Your task to perform on an android device: Do I have any events this weekend? Image 0: 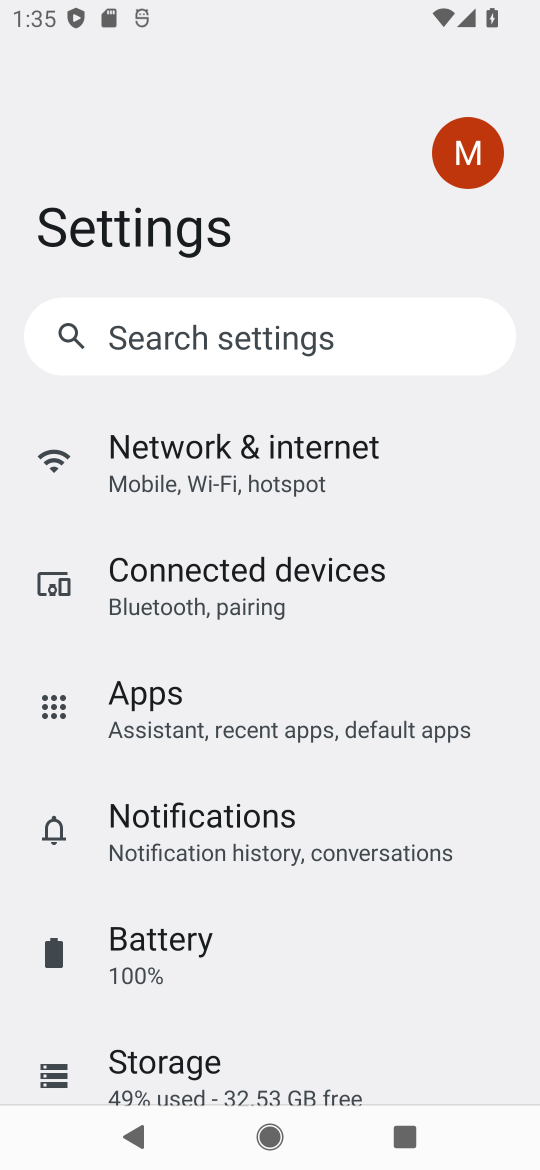
Step 0: press home button
Your task to perform on an android device: Do I have any events this weekend? Image 1: 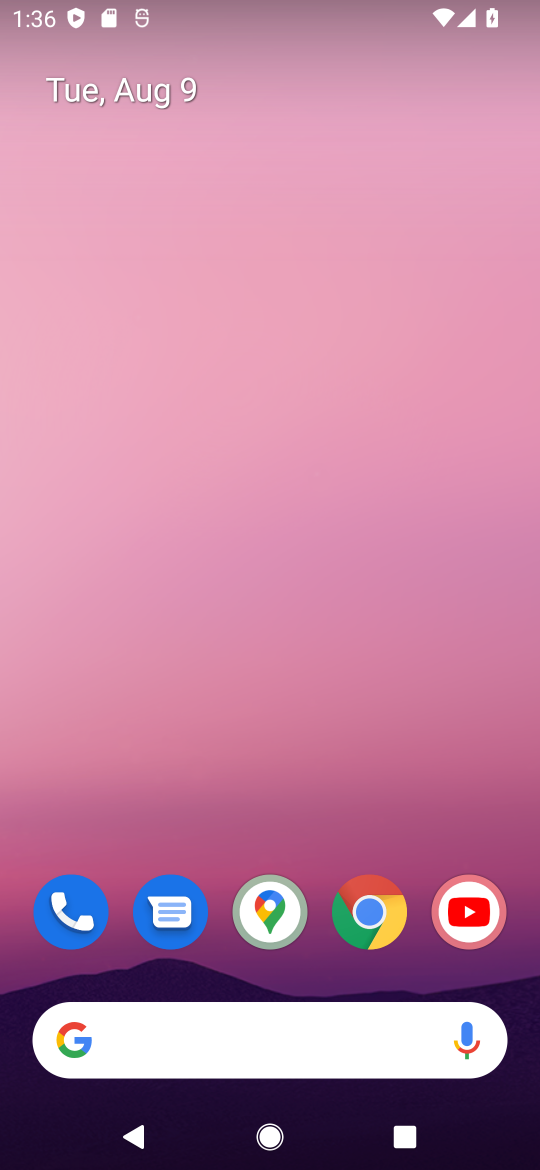
Step 1: drag from (174, 349) to (160, 218)
Your task to perform on an android device: Do I have any events this weekend? Image 2: 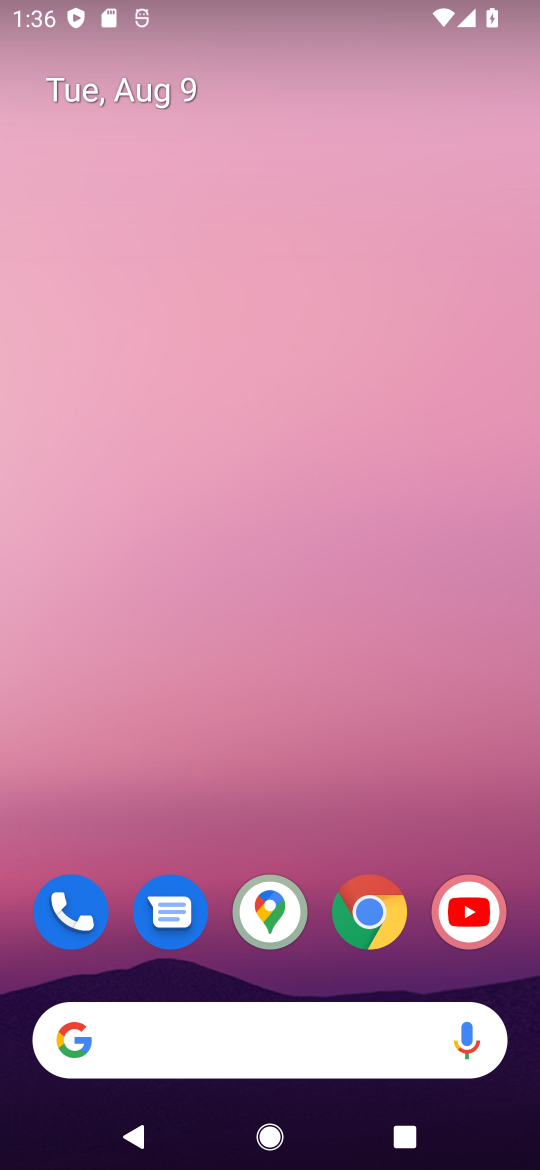
Step 2: drag from (353, 828) to (321, 162)
Your task to perform on an android device: Do I have any events this weekend? Image 3: 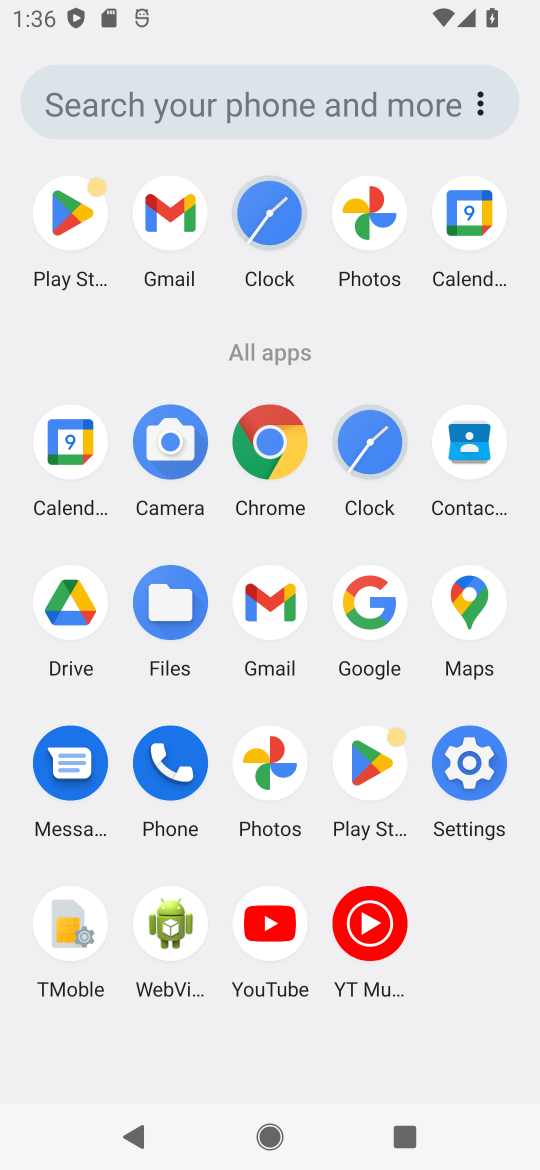
Step 3: click (473, 208)
Your task to perform on an android device: Do I have any events this weekend? Image 4: 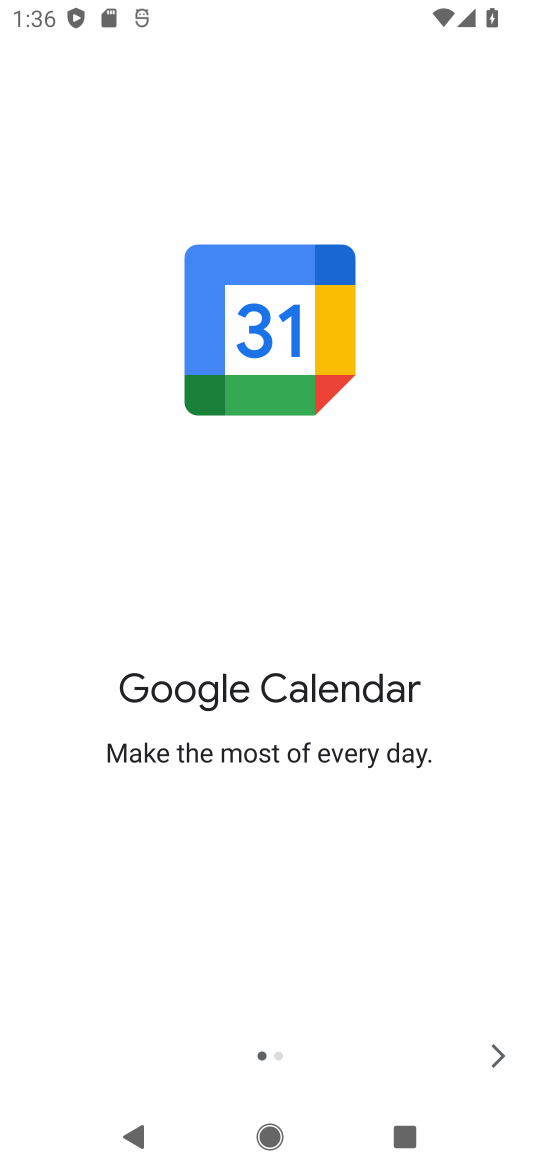
Step 4: click (500, 1057)
Your task to perform on an android device: Do I have any events this weekend? Image 5: 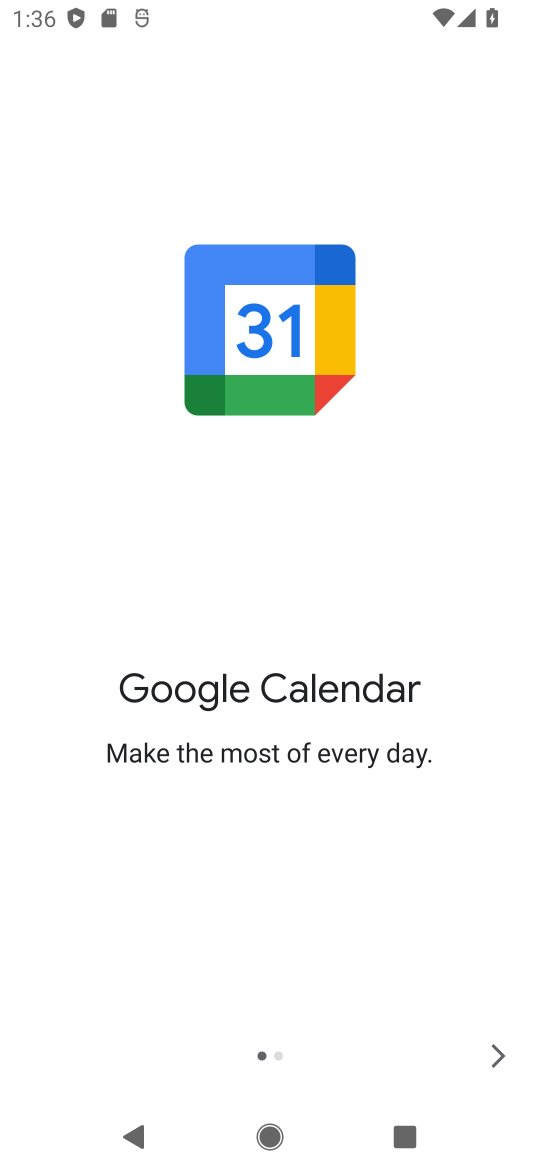
Step 5: click (500, 1057)
Your task to perform on an android device: Do I have any events this weekend? Image 6: 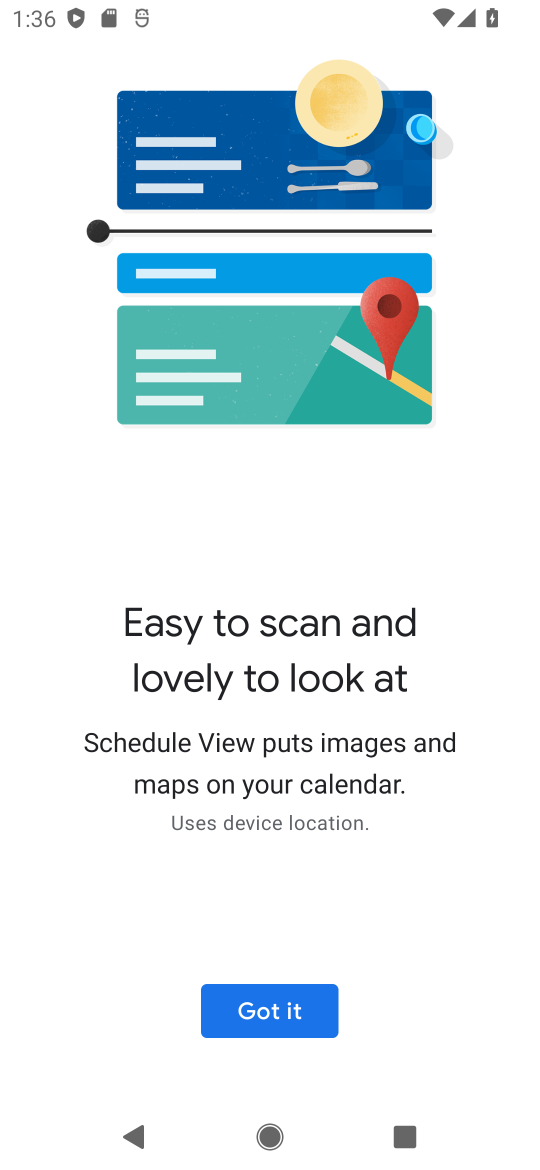
Step 6: click (270, 1013)
Your task to perform on an android device: Do I have any events this weekend? Image 7: 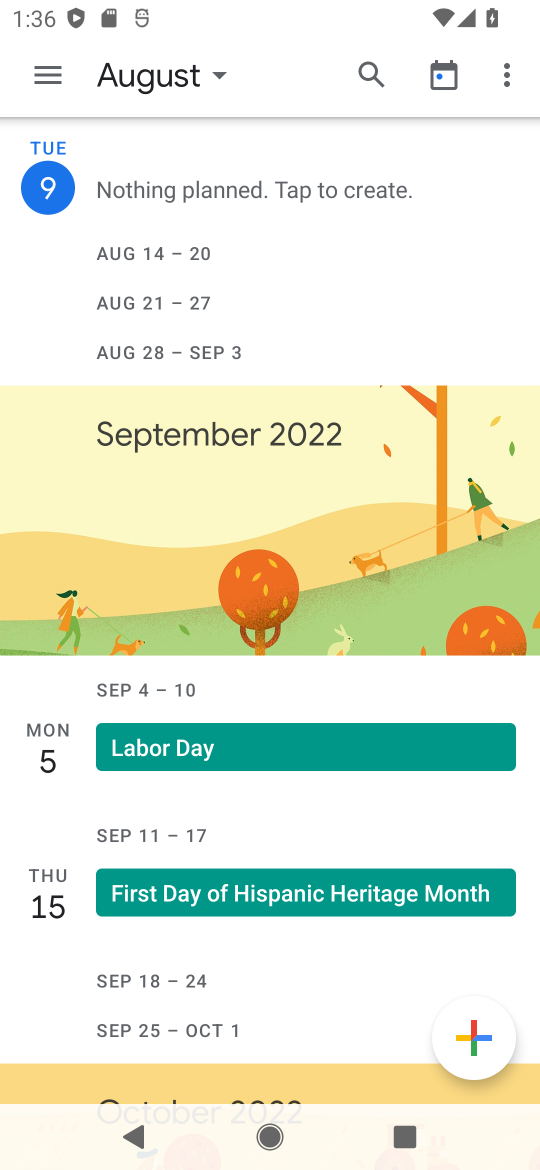
Step 7: click (40, 65)
Your task to perform on an android device: Do I have any events this weekend? Image 8: 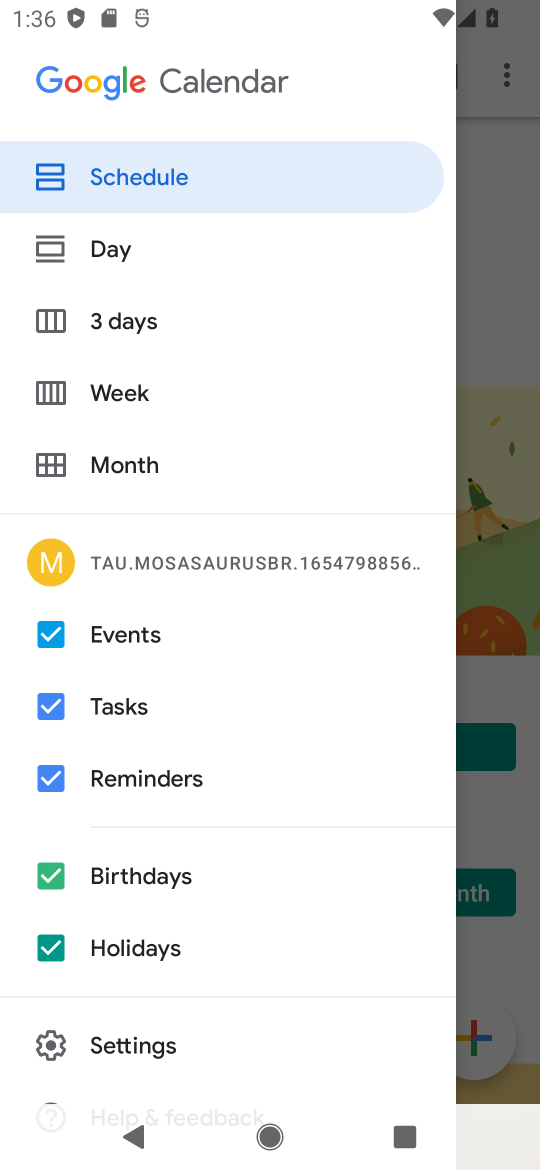
Step 8: click (114, 386)
Your task to perform on an android device: Do I have any events this weekend? Image 9: 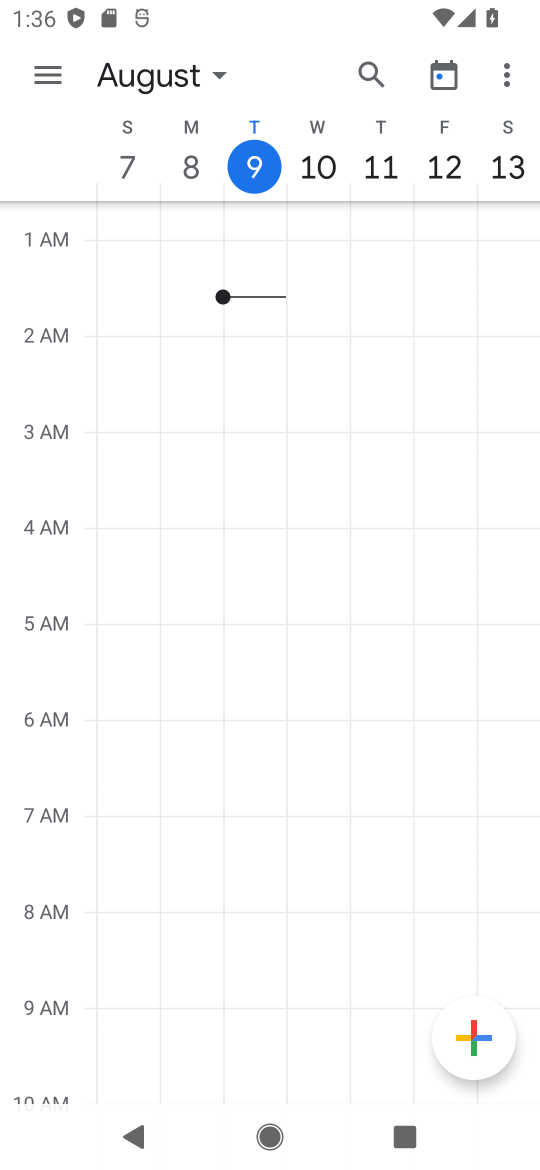
Step 9: task complete